Your task to perform on an android device: check storage Image 0: 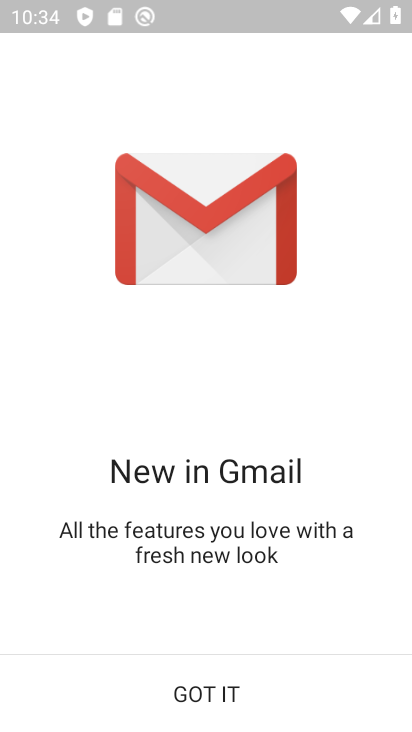
Step 0: press home button
Your task to perform on an android device: check storage Image 1: 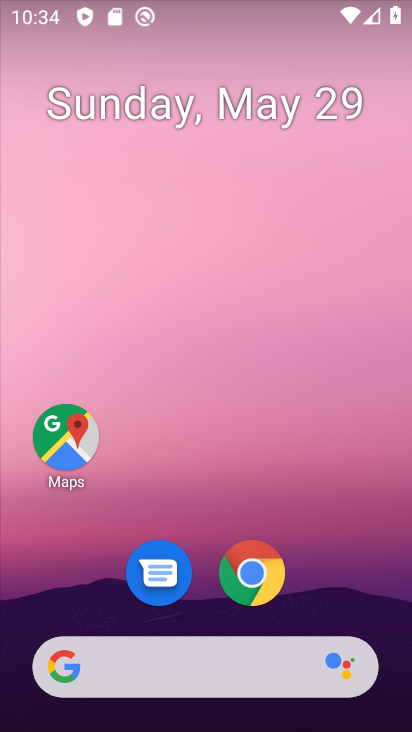
Step 1: drag from (327, 475) to (316, 111)
Your task to perform on an android device: check storage Image 2: 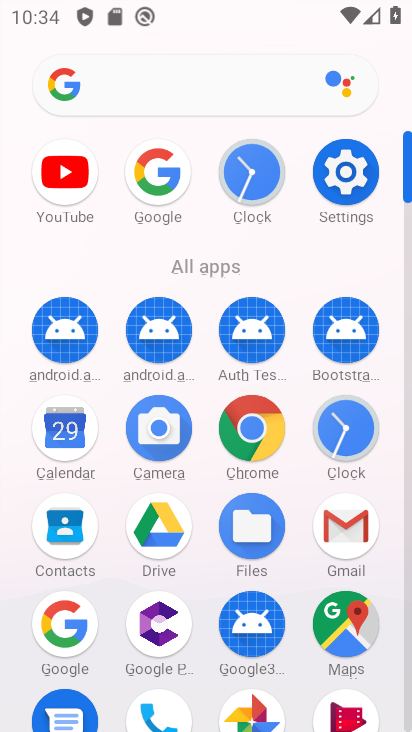
Step 2: click (355, 183)
Your task to perform on an android device: check storage Image 3: 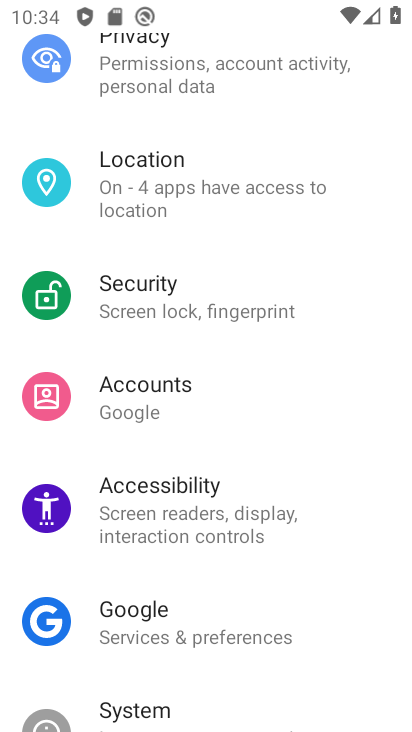
Step 3: drag from (328, 664) to (323, 87)
Your task to perform on an android device: check storage Image 4: 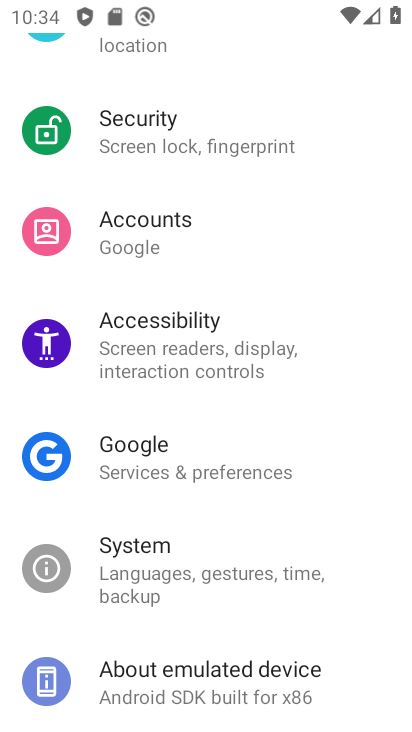
Step 4: drag from (298, 164) to (280, 731)
Your task to perform on an android device: check storage Image 5: 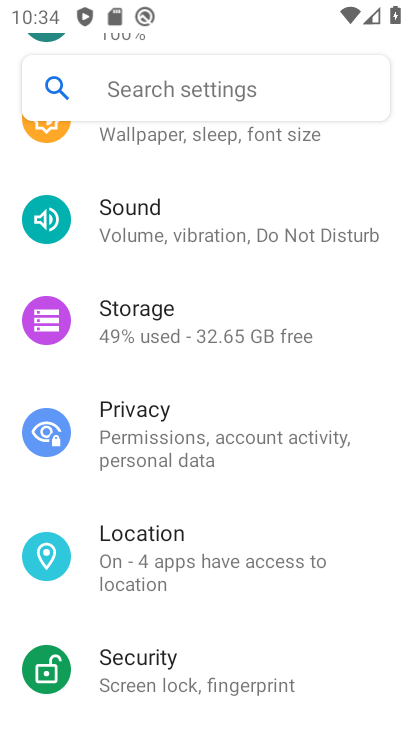
Step 5: click (133, 336)
Your task to perform on an android device: check storage Image 6: 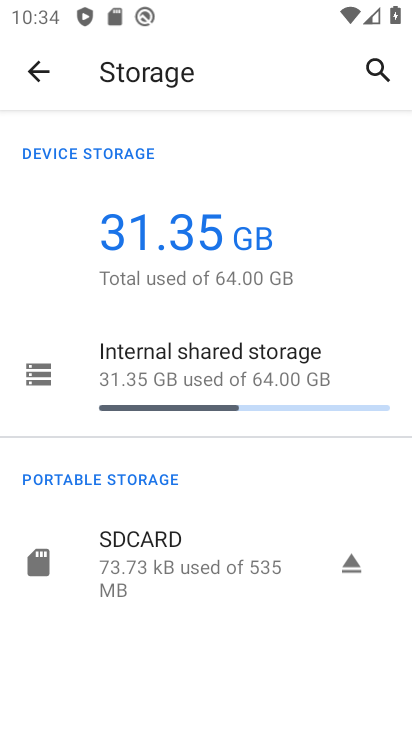
Step 6: task complete